Your task to perform on an android device: see creations saved in the google photos Image 0: 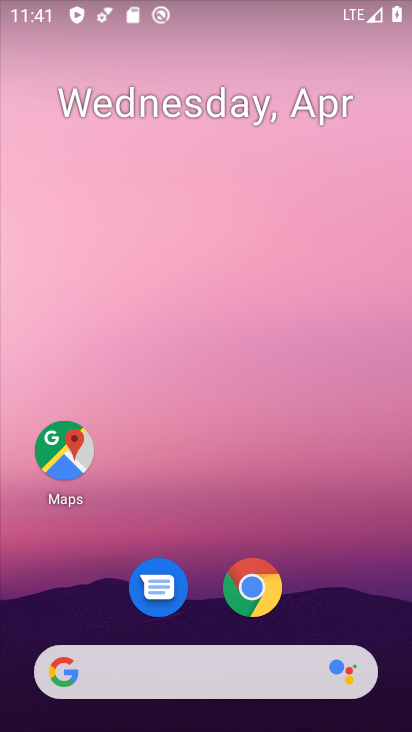
Step 0: drag from (292, 616) to (175, 60)
Your task to perform on an android device: see creations saved in the google photos Image 1: 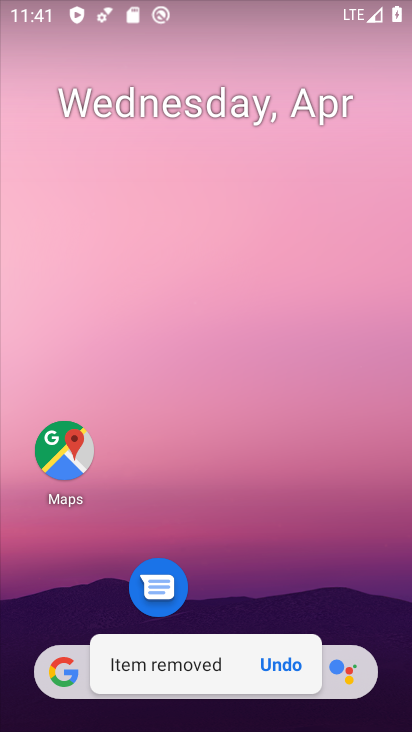
Step 1: drag from (238, 565) to (241, 55)
Your task to perform on an android device: see creations saved in the google photos Image 2: 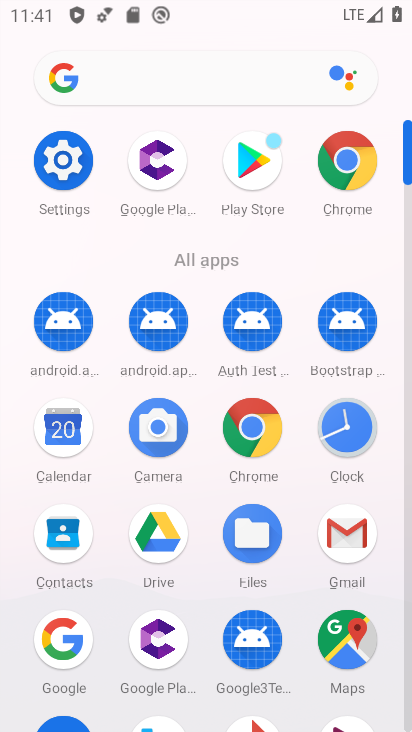
Step 2: click (408, 717)
Your task to perform on an android device: see creations saved in the google photos Image 3: 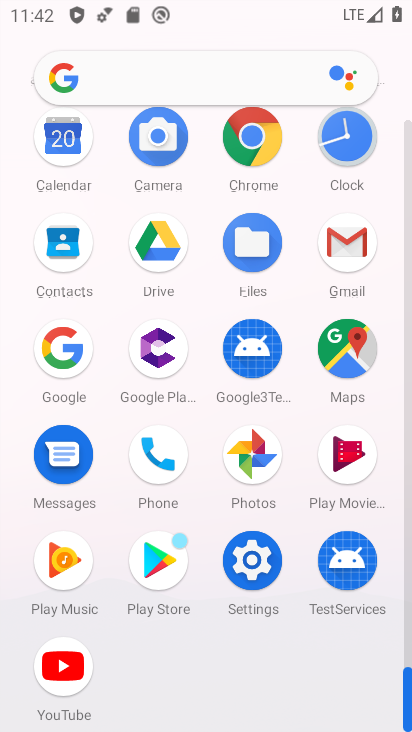
Step 3: click (240, 463)
Your task to perform on an android device: see creations saved in the google photos Image 4: 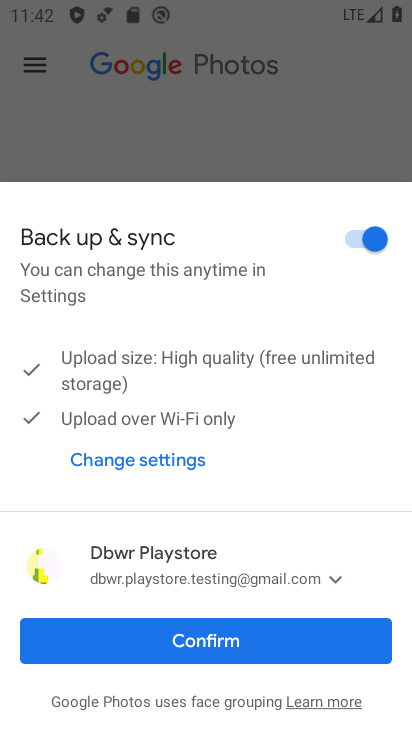
Step 4: click (238, 653)
Your task to perform on an android device: see creations saved in the google photos Image 5: 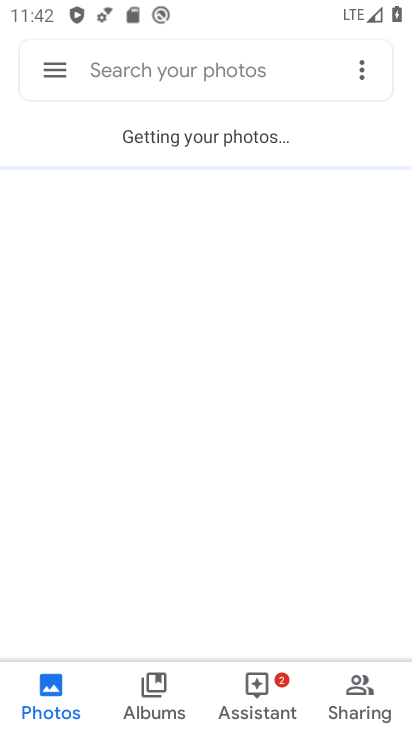
Step 5: click (34, 85)
Your task to perform on an android device: see creations saved in the google photos Image 6: 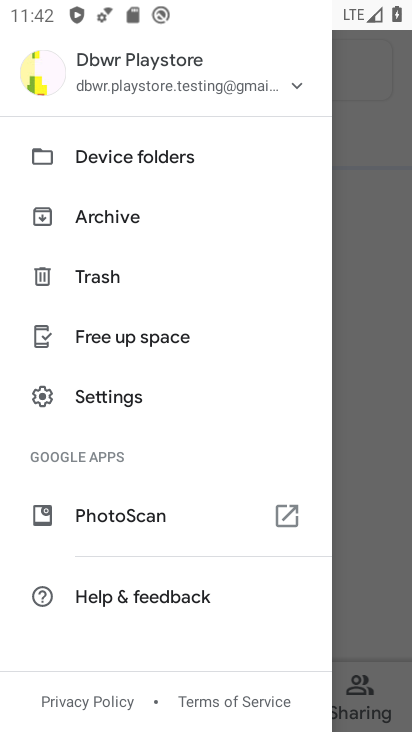
Step 6: click (77, 218)
Your task to perform on an android device: see creations saved in the google photos Image 7: 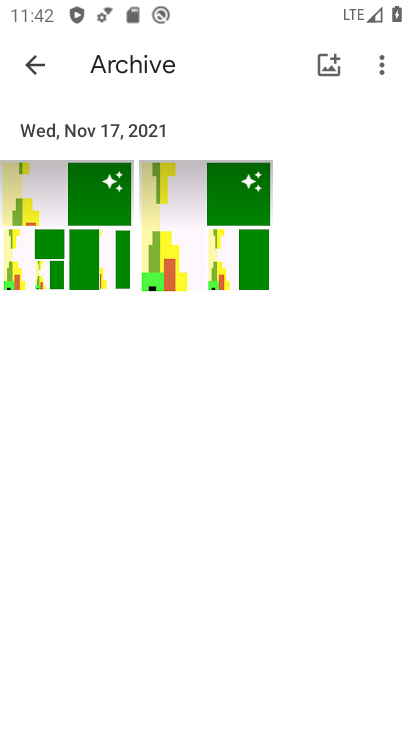
Step 7: task complete